Your task to perform on an android device: Do I have any events tomorrow? Image 0: 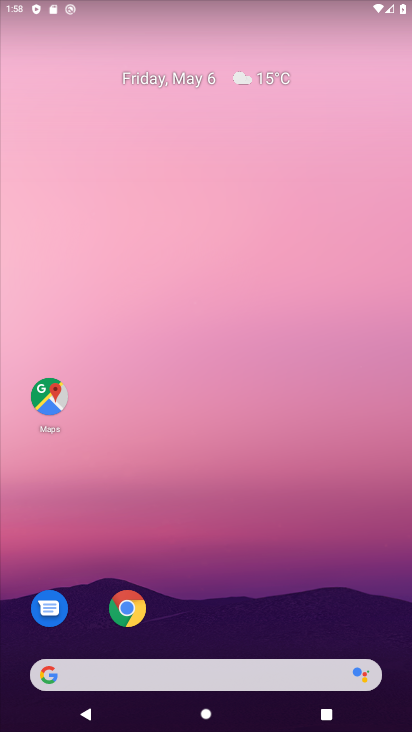
Step 0: drag from (244, 595) to (239, 0)
Your task to perform on an android device: Do I have any events tomorrow? Image 1: 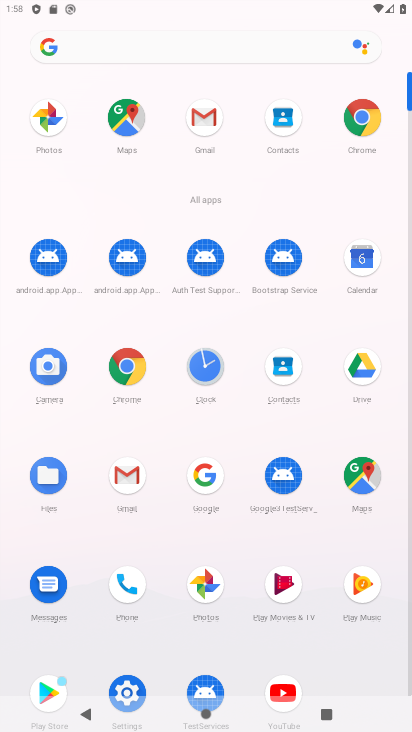
Step 1: click (362, 258)
Your task to perform on an android device: Do I have any events tomorrow? Image 2: 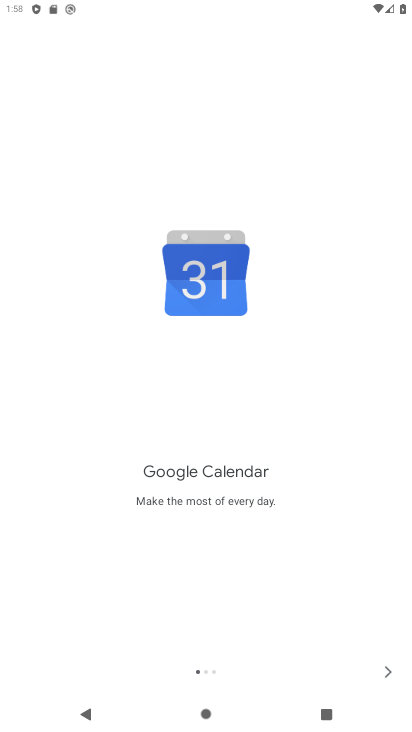
Step 2: click (388, 672)
Your task to perform on an android device: Do I have any events tomorrow? Image 3: 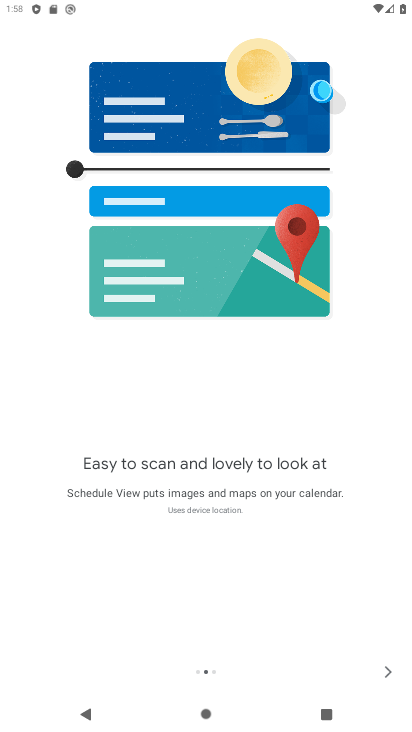
Step 3: click (388, 672)
Your task to perform on an android device: Do I have any events tomorrow? Image 4: 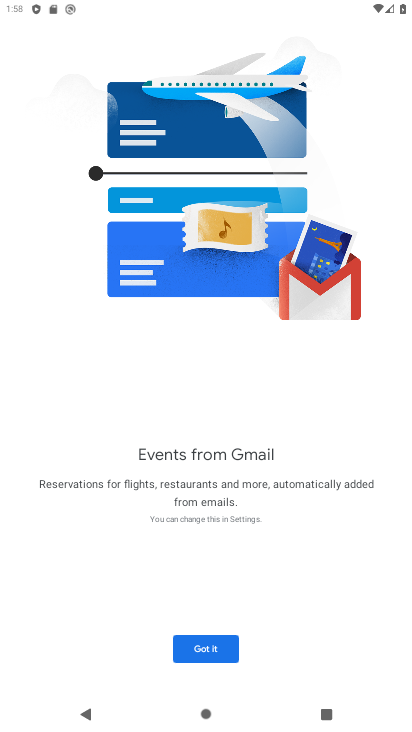
Step 4: click (203, 650)
Your task to perform on an android device: Do I have any events tomorrow? Image 5: 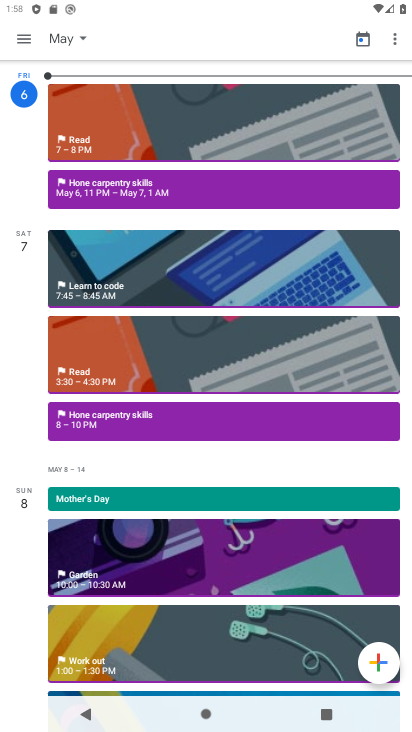
Step 5: click (83, 36)
Your task to perform on an android device: Do I have any events tomorrow? Image 6: 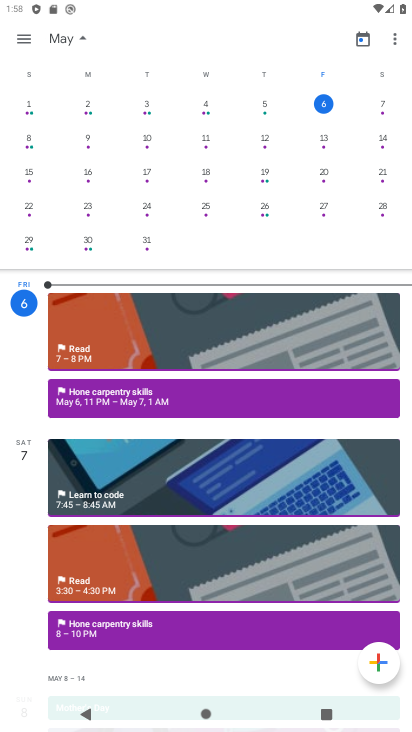
Step 6: click (380, 100)
Your task to perform on an android device: Do I have any events tomorrow? Image 7: 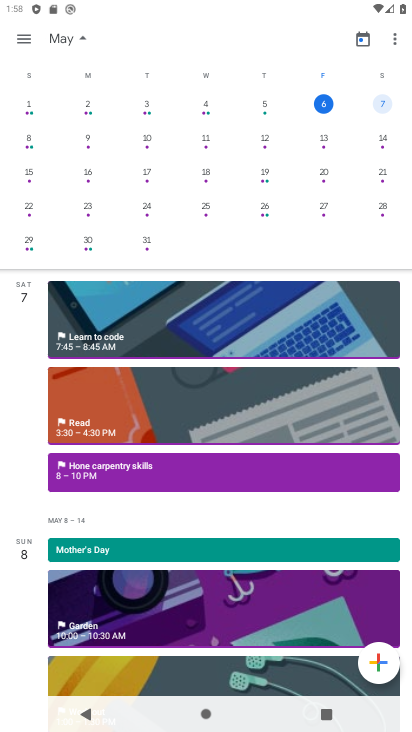
Step 7: click (96, 312)
Your task to perform on an android device: Do I have any events tomorrow? Image 8: 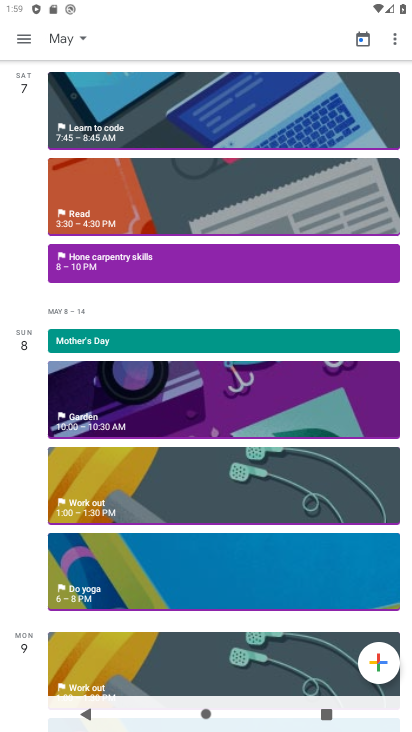
Step 8: click (126, 257)
Your task to perform on an android device: Do I have any events tomorrow? Image 9: 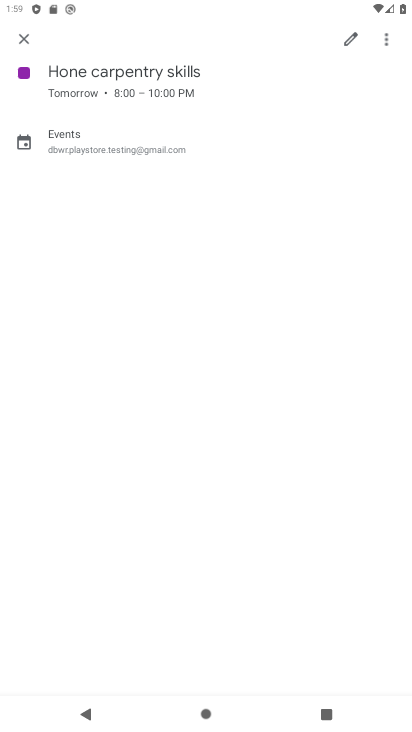
Step 9: task complete